Your task to perform on an android device: Search for Mexican restaurants on Maps Image 0: 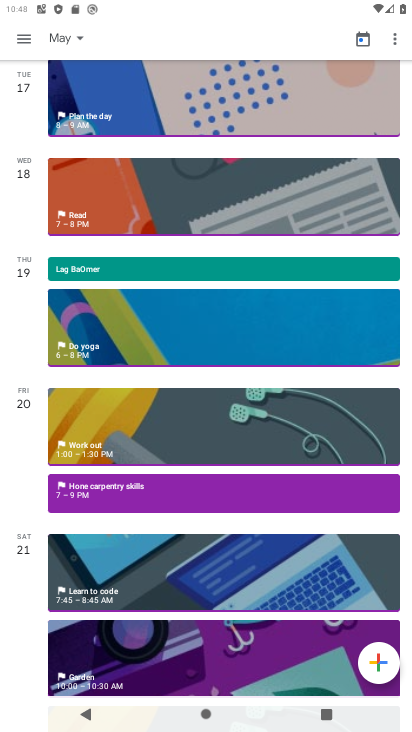
Step 0: press home button
Your task to perform on an android device: Search for Mexican restaurants on Maps Image 1: 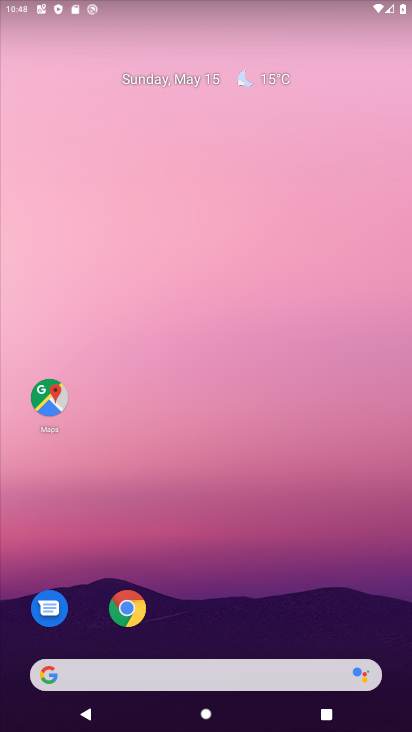
Step 1: click (56, 405)
Your task to perform on an android device: Search for Mexican restaurants on Maps Image 2: 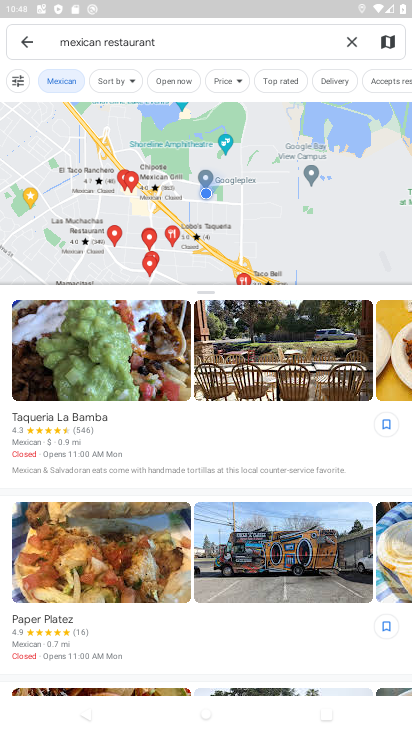
Step 2: task complete